Your task to perform on an android device: open a bookmark in the chrome app Image 0: 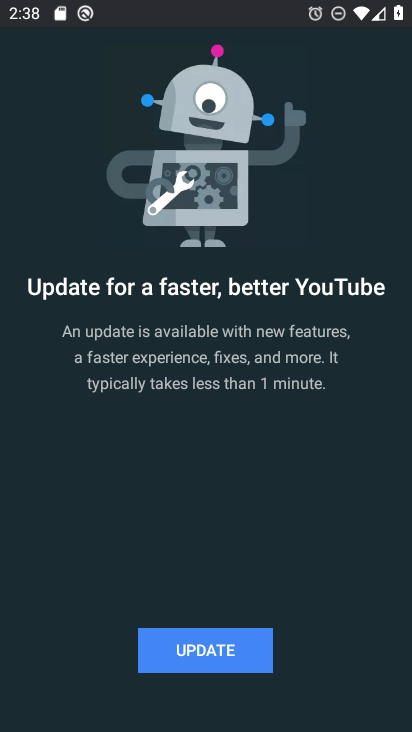
Step 0: press home button
Your task to perform on an android device: open a bookmark in the chrome app Image 1: 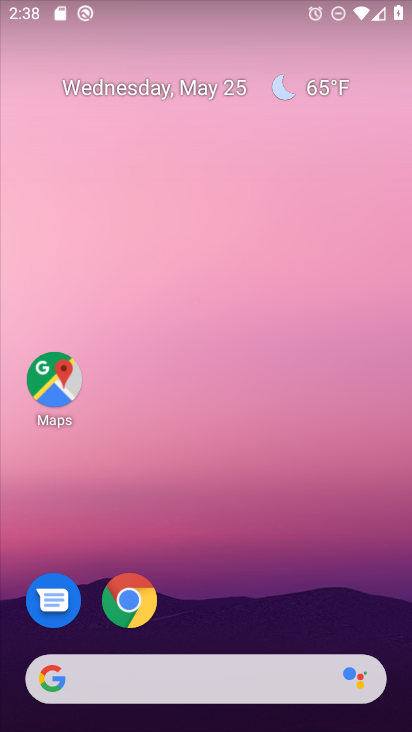
Step 1: click (128, 601)
Your task to perform on an android device: open a bookmark in the chrome app Image 2: 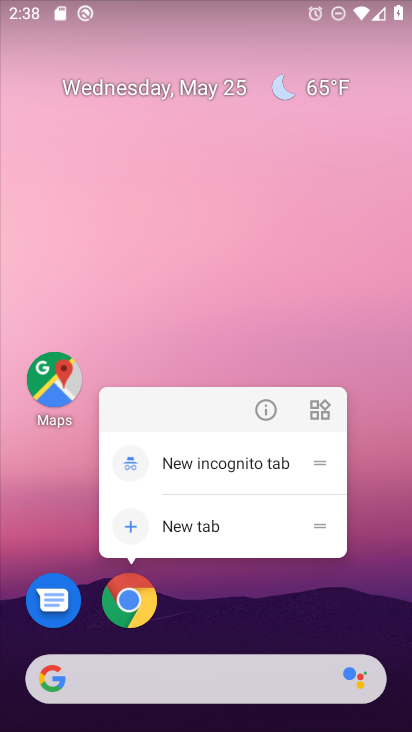
Step 2: click (133, 605)
Your task to perform on an android device: open a bookmark in the chrome app Image 3: 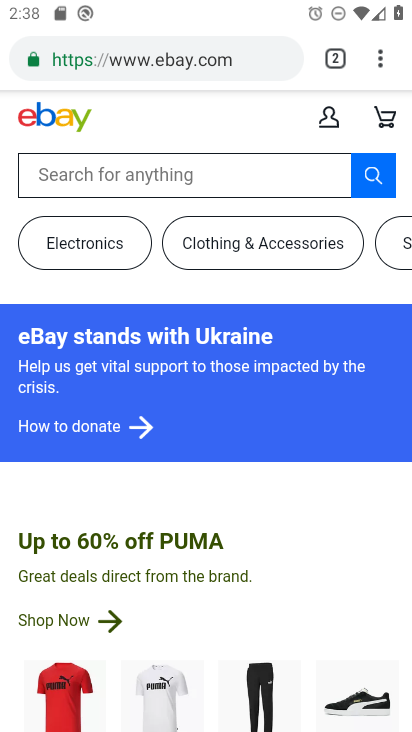
Step 3: task complete